Your task to perform on an android device: turn off smart reply in the gmail app Image 0: 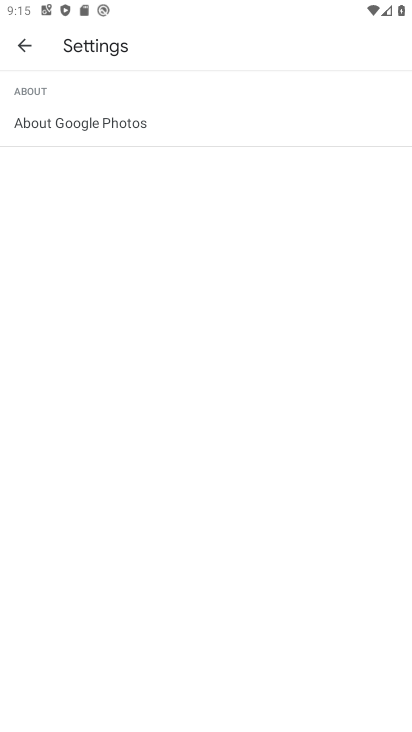
Step 0: press home button
Your task to perform on an android device: turn off smart reply in the gmail app Image 1: 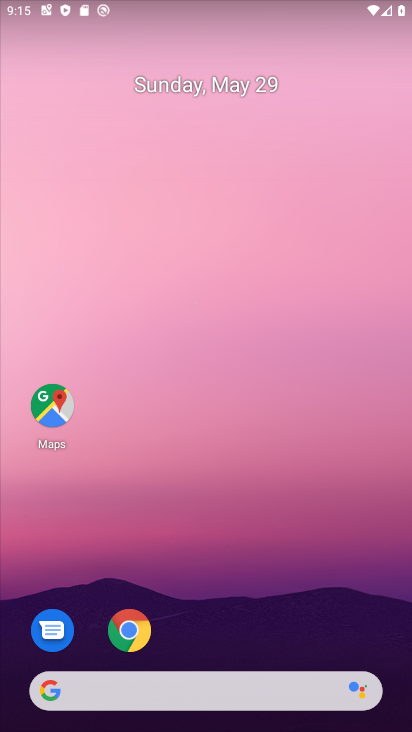
Step 1: drag from (345, 623) to (295, 76)
Your task to perform on an android device: turn off smart reply in the gmail app Image 2: 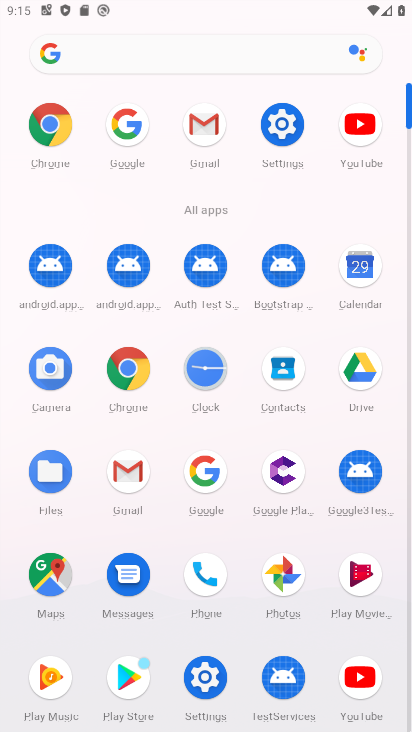
Step 2: click (133, 474)
Your task to perform on an android device: turn off smart reply in the gmail app Image 3: 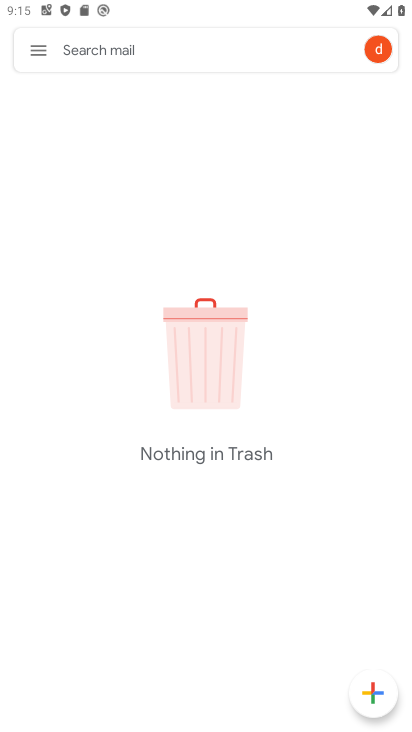
Step 3: click (42, 45)
Your task to perform on an android device: turn off smart reply in the gmail app Image 4: 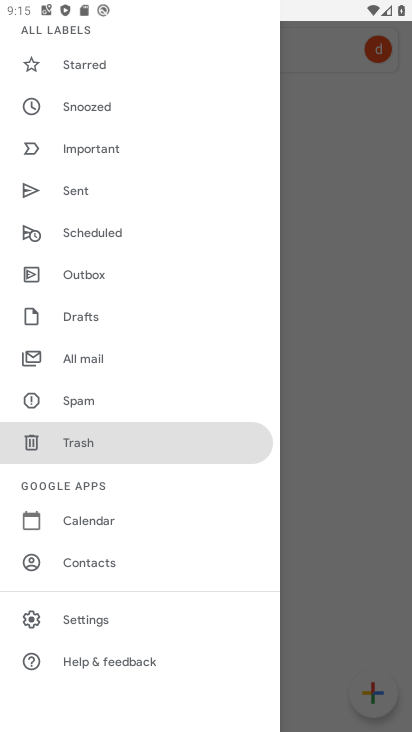
Step 4: click (104, 616)
Your task to perform on an android device: turn off smart reply in the gmail app Image 5: 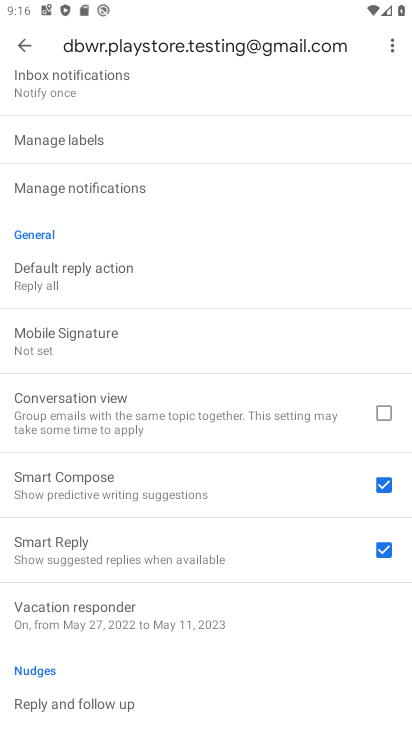
Step 5: click (388, 549)
Your task to perform on an android device: turn off smart reply in the gmail app Image 6: 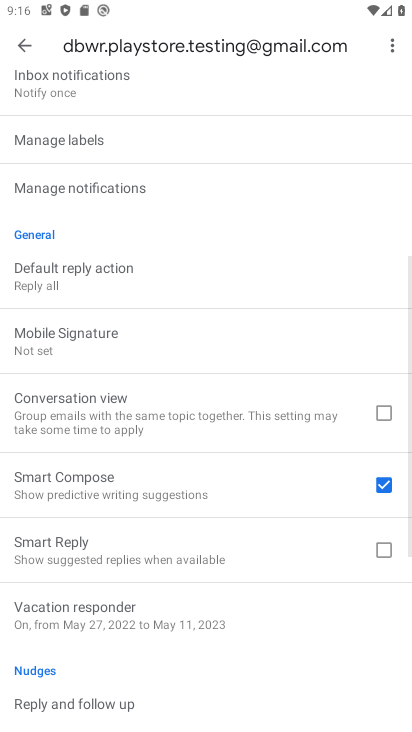
Step 6: task complete